Your task to perform on an android device: change timer sound Image 0: 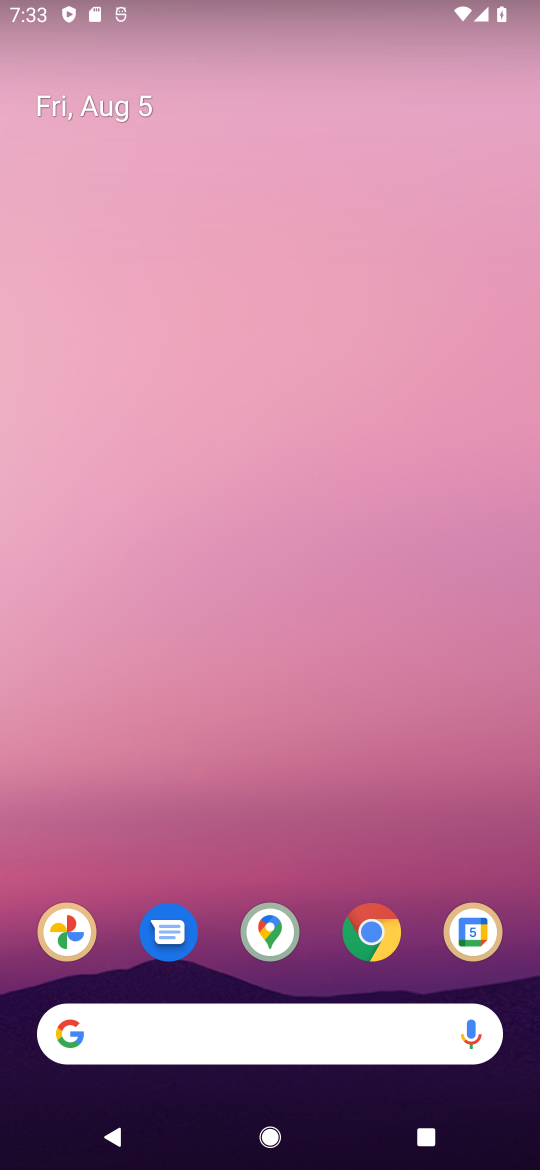
Step 0: drag from (328, 685) to (343, 83)
Your task to perform on an android device: change timer sound Image 1: 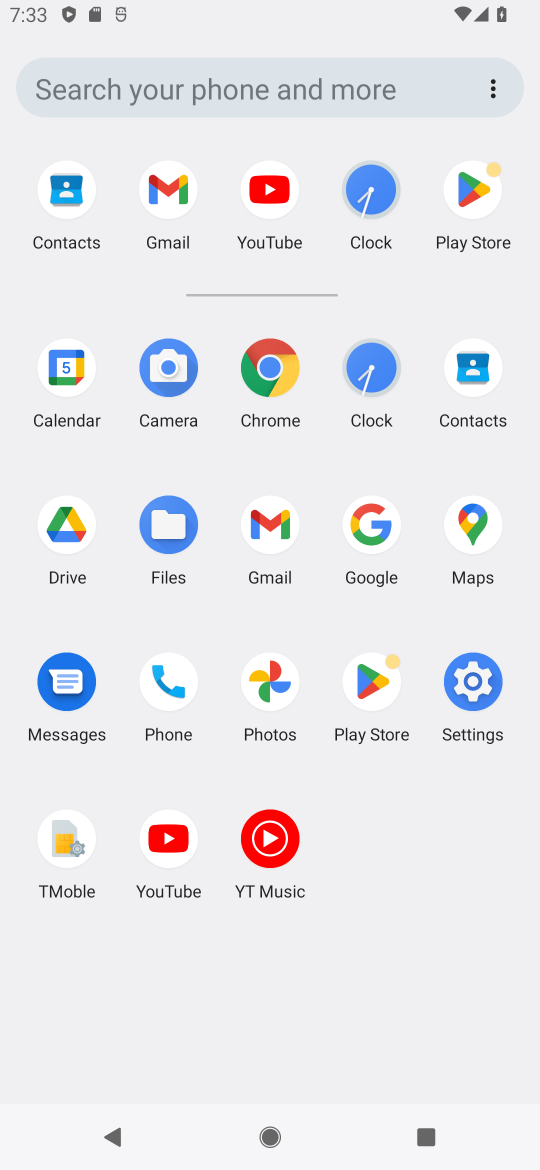
Step 1: click (388, 372)
Your task to perform on an android device: change timer sound Image 2: 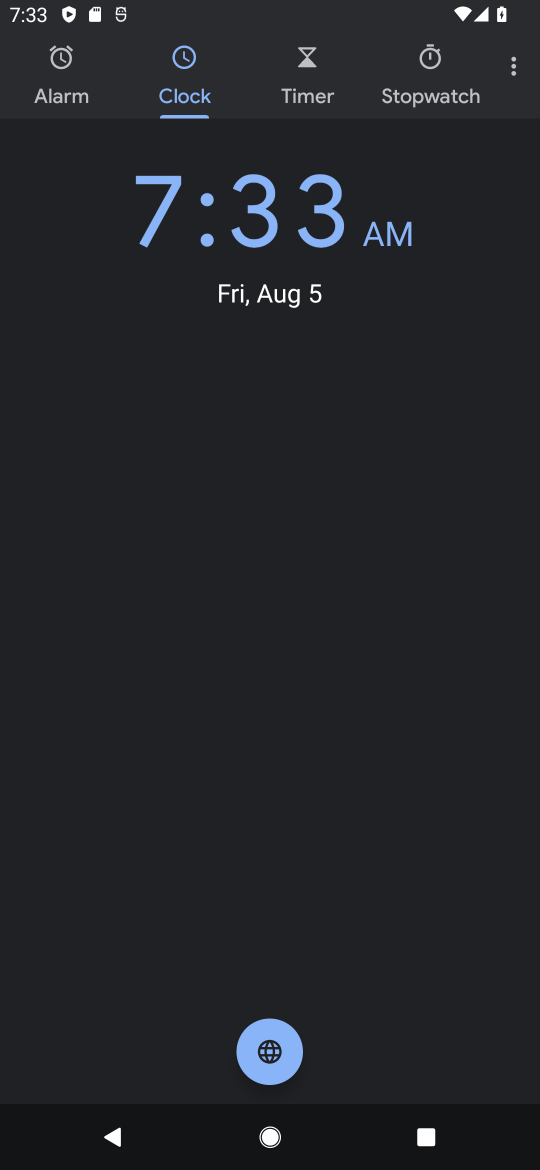
Step 2: click (514, 56)
Your task to perform on an android device: change timer sound Image 3: 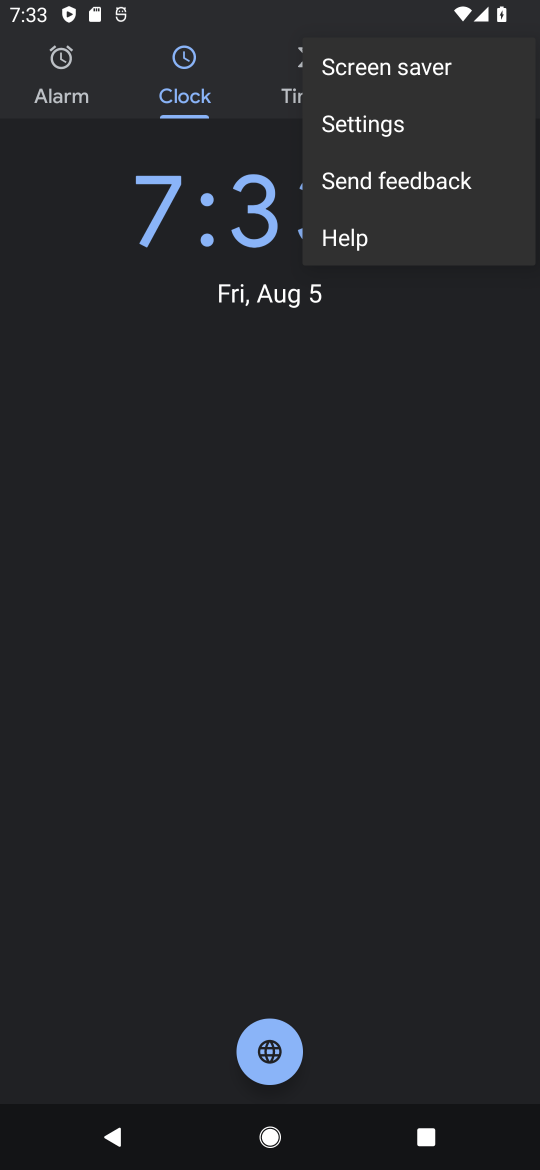
Step 3: click (385, 126)
Your task to perform on an android device: change timer sound Image 4: 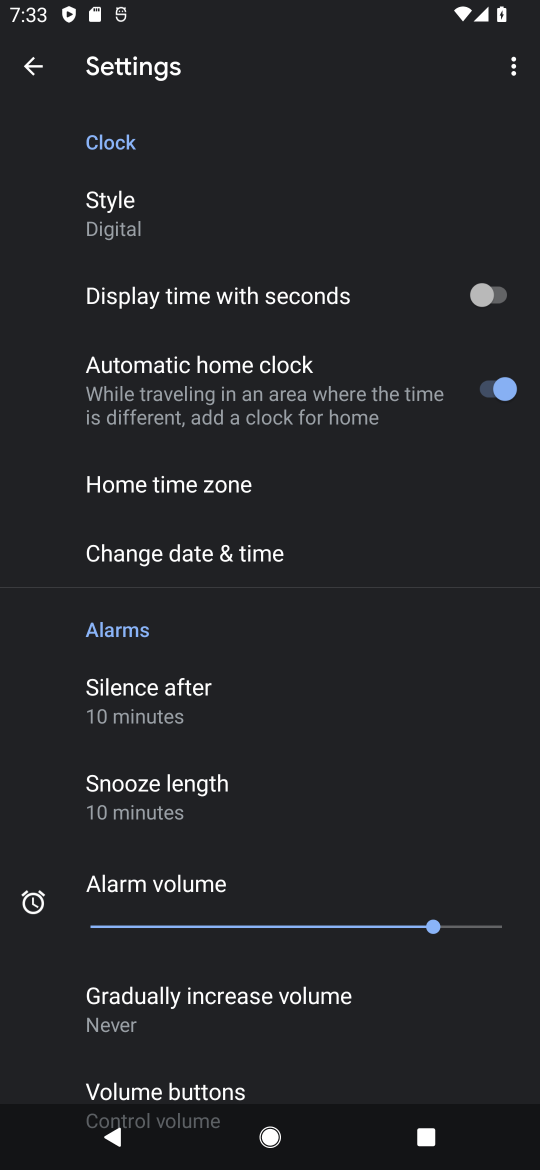
Step 4: drag from (331, 801) to (359, 388)
Your task to perform on an android device: change timer sound Image 5: 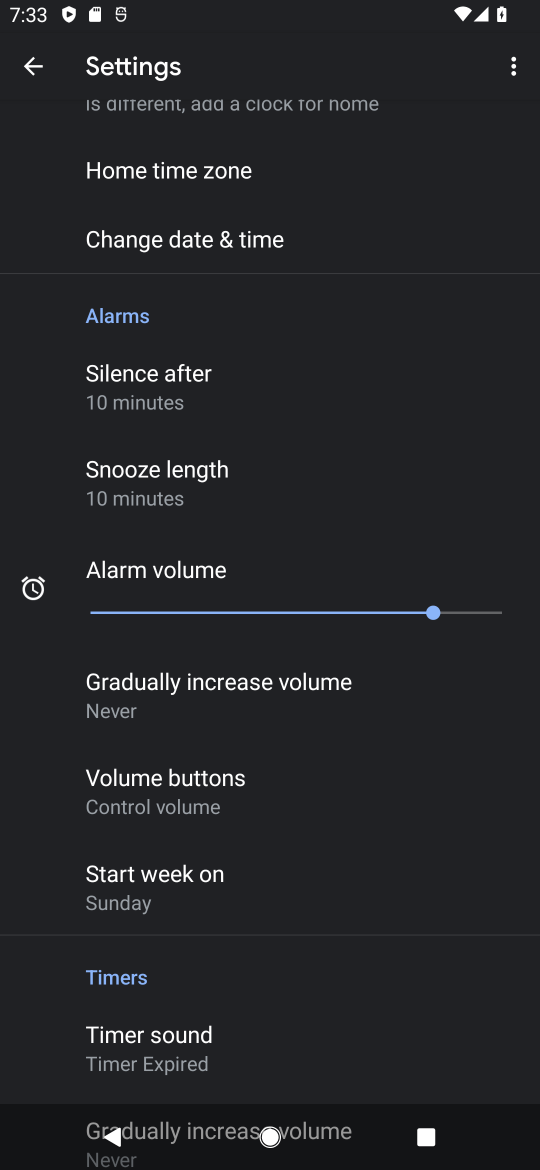
Step 5: click (168, 1034)
Your task to perform on an android device: change timer sound Image 6: 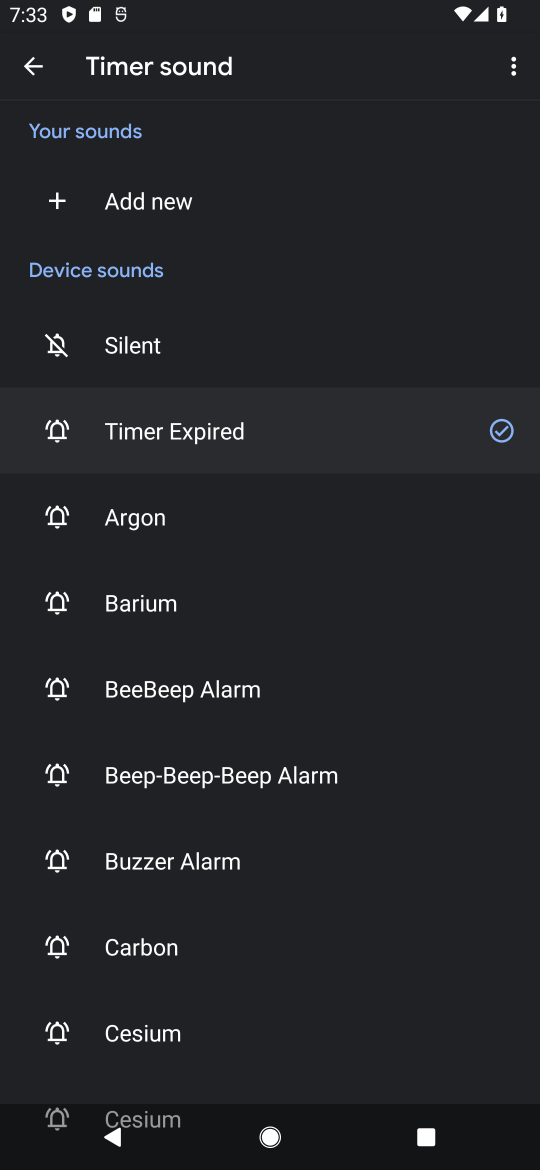
Step 6: click (161, 544)
Your task to perform on an android device: change timer sound Image 7: 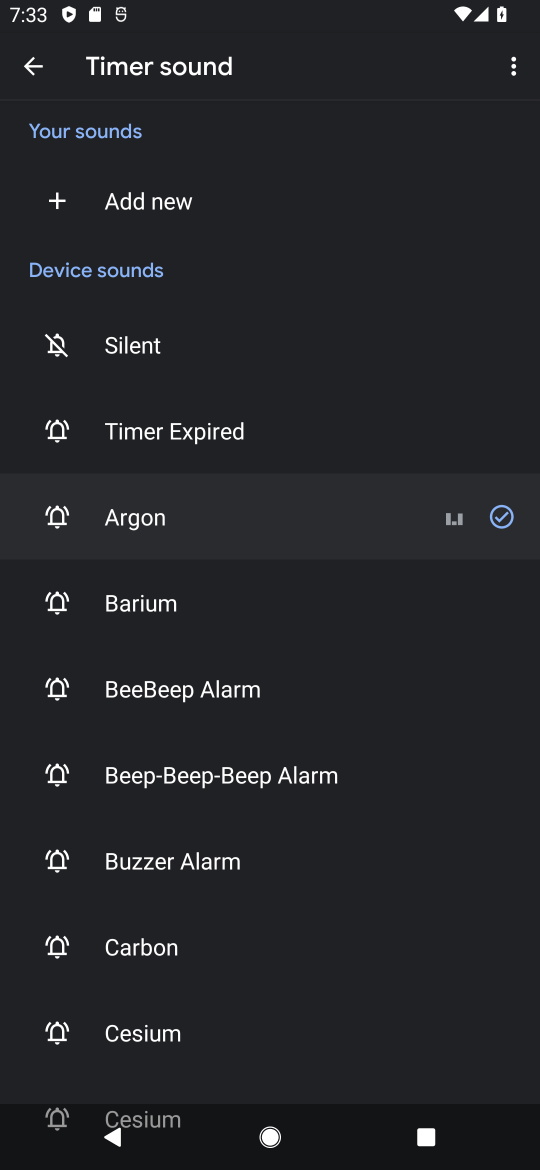
Step 7: task complete